Your task to perform on an android device: Search for pizza restaurants on Maps Image 0: 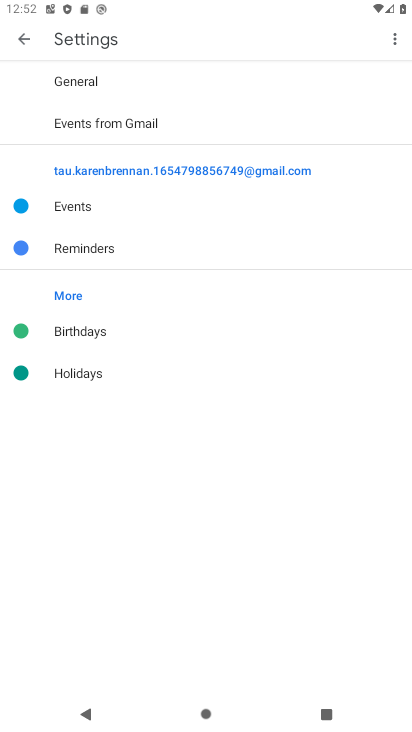
Step 0: press home button
Your task to perform on an android device: Search for pizza restaurants on Maps Image 1: 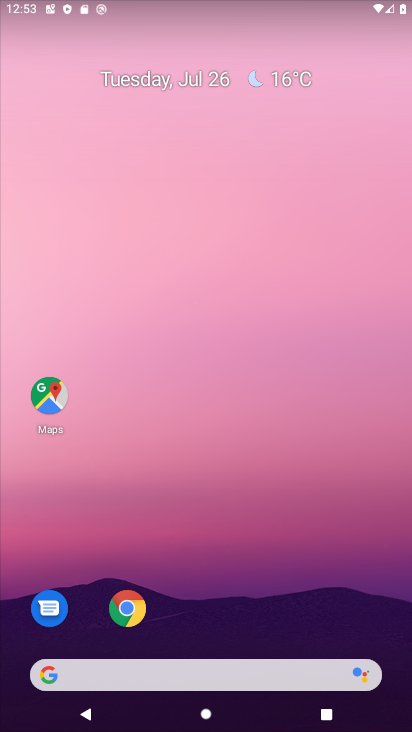
Step 1: click (189, 674)
Your task to perform on an android device: Search for pizza restaurants on Maps Image 2: 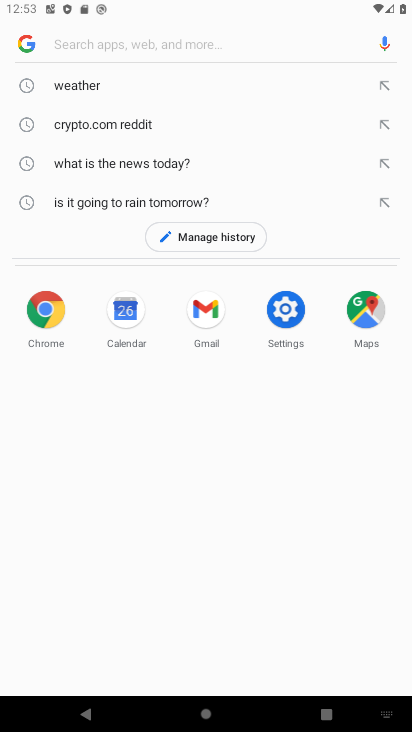
Step 2: type "pizza"
Your task to perform on an android device: Search for pizza restaurants on Maps Image 3: 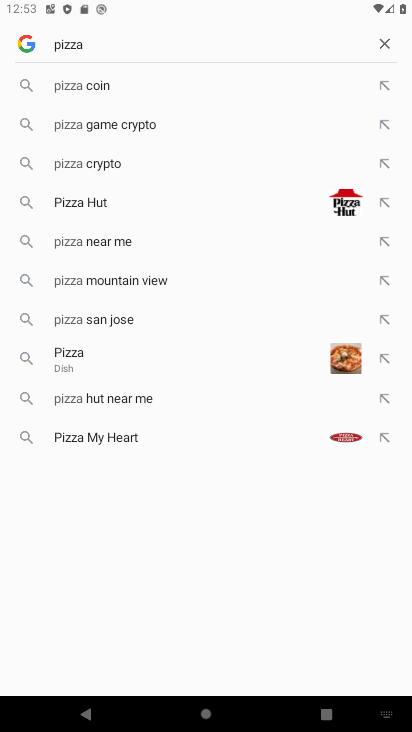
Step 3: click (187, 204)
Your task to perform on an android device: Search for pizza restaurants on Maps Image 4: 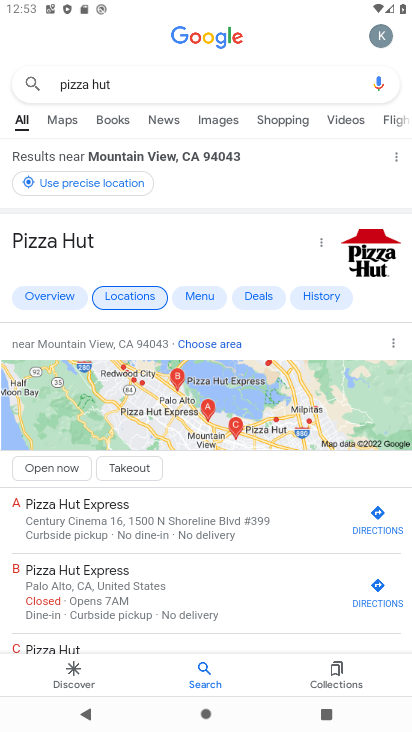
Step 4: task complete